Your task to perform on an android device: set the stopwatch Image 0: 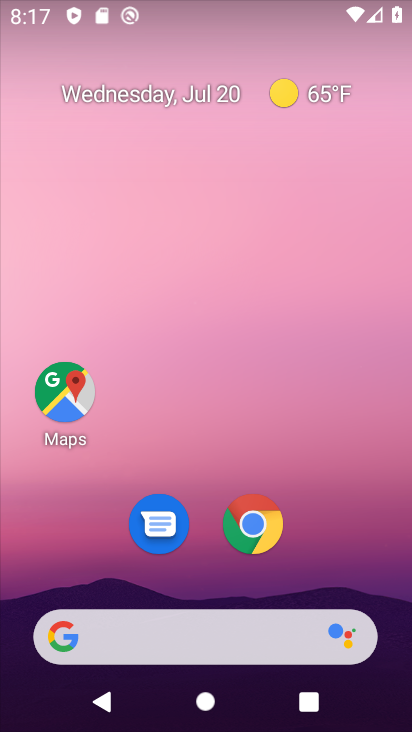
Step 0: drag from (327, 549) to (321, 64)
Your task to perform on an android device: set the stopwatch Image 1: 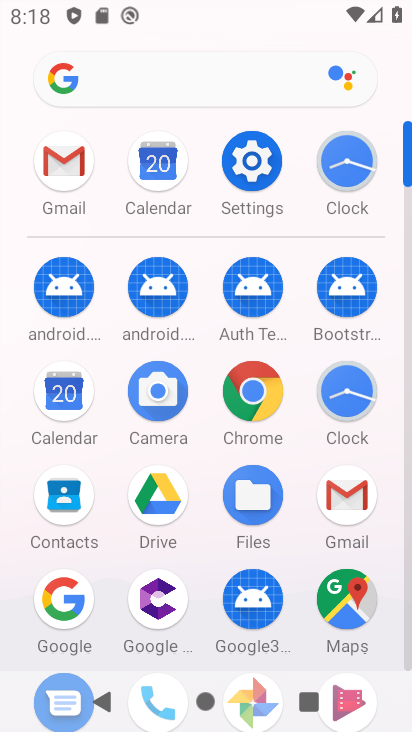
Step 1: click (364, 164)
Your task to perform on an android device: set the stopwatch Image 2: 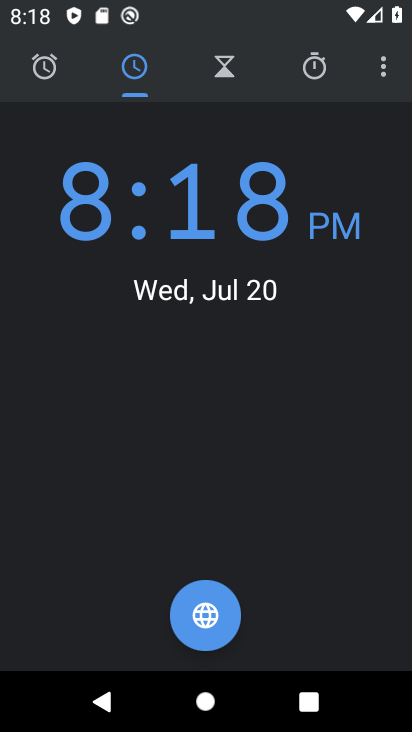
Step 2: click (321, 62)
Your task to perform on an android device: set the stopwatch Image 3: 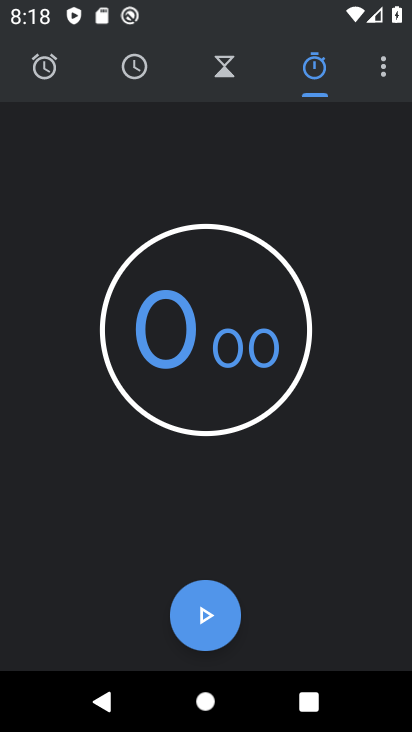
Step 3: task complete